Your task to perform on an android device: Search for logitech g903 on target, select the first entry, add it to the cart, then select checkout. Image 0: 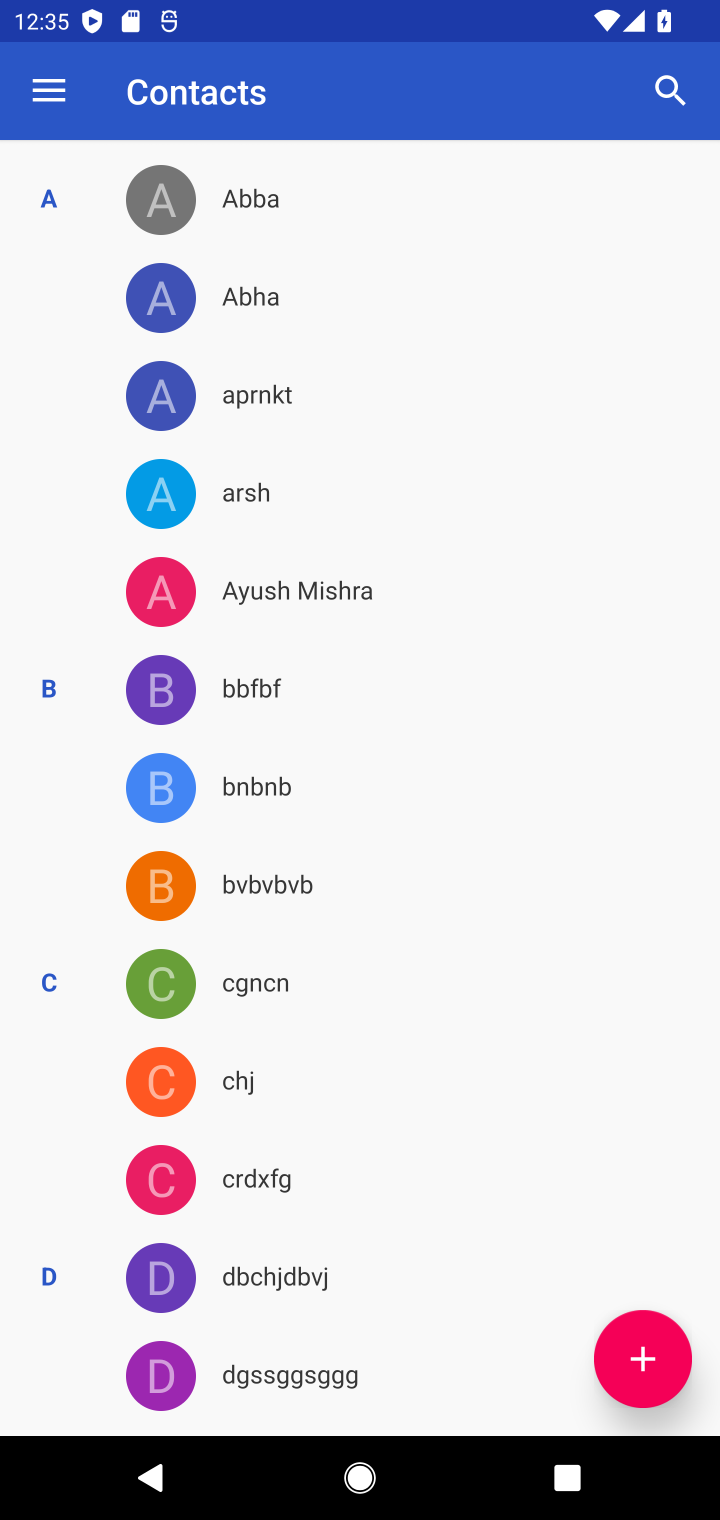
Step 0: press home button
Your task to perform on an android device: Search for logitech g903 on target, select the first entry, add it to the cart, then select checkout. Image 1: 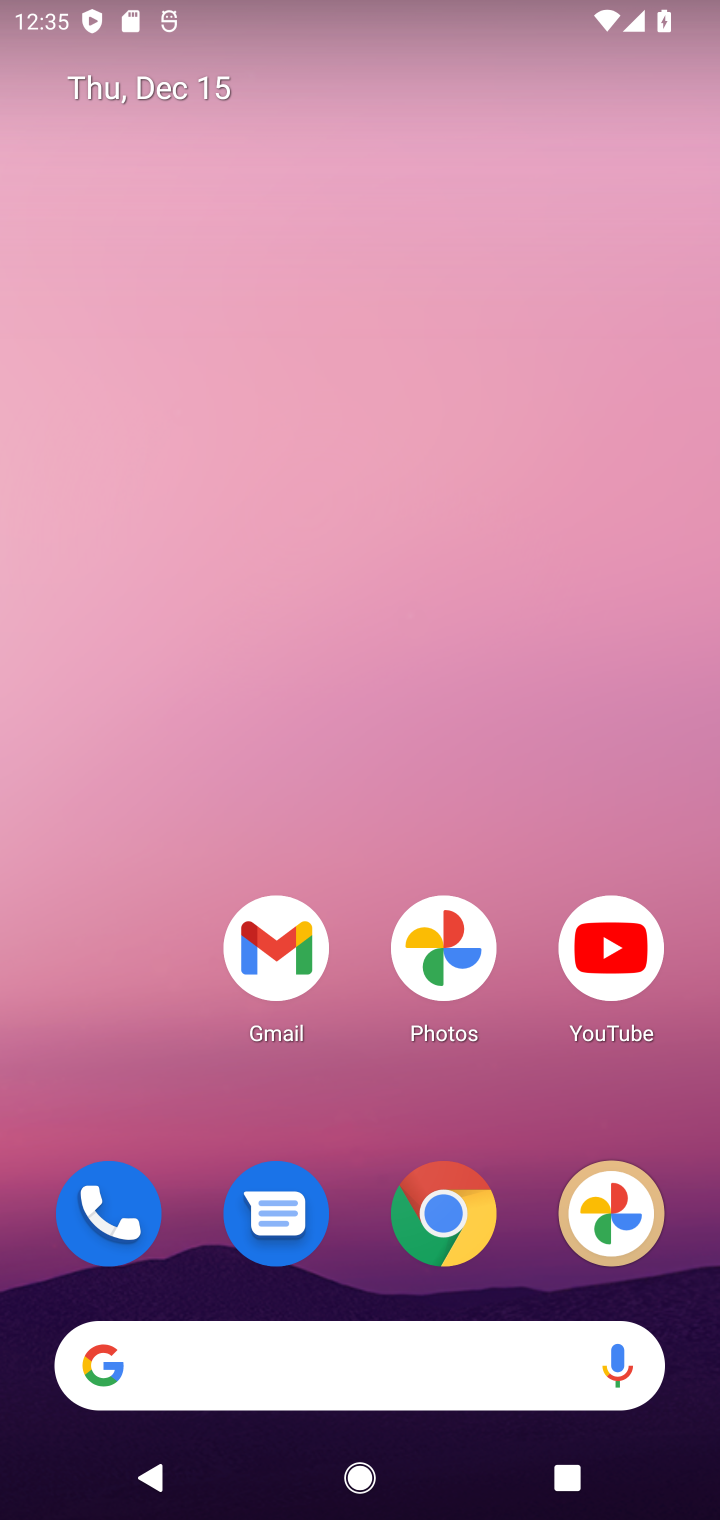
Step 1: click (460, 1246)
Your task to perform on an android device: Search for logitech g903 on target, select the first entry, add it to the cart, then select checkout. Image 2: 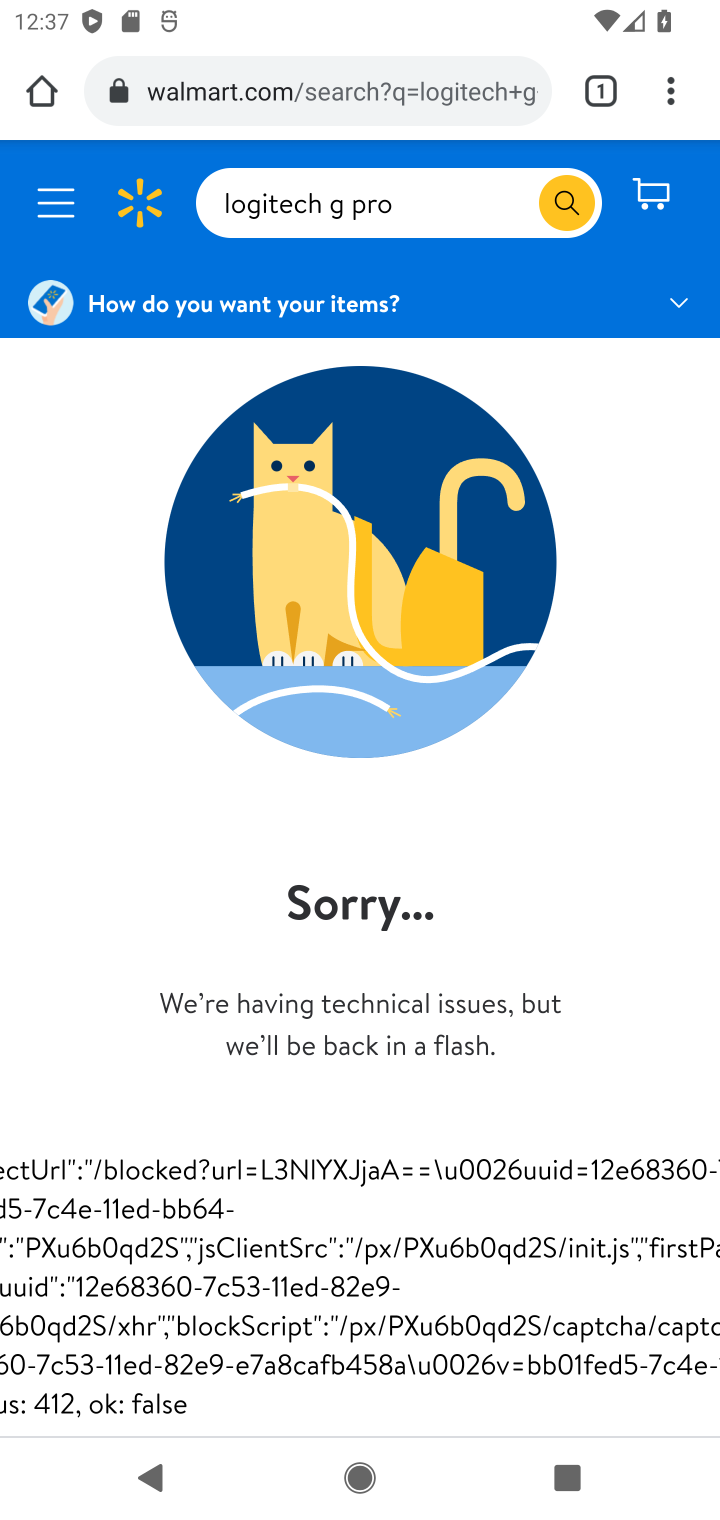
Step 2: task complete